Your task to perform on an android device: Go to Yahoo.com Image 0: 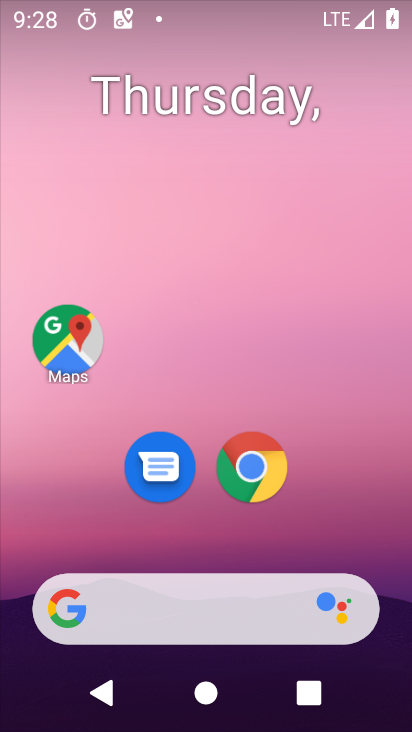
Step 0: click (245, 470)
Your task to perform on an android device: Go to Yahoo.com Image 1: 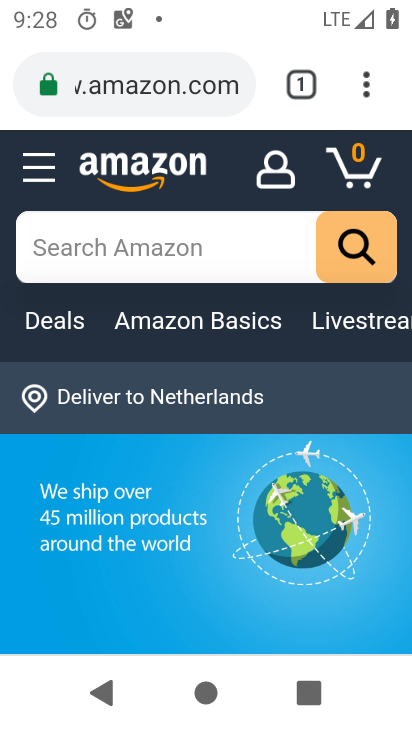
Step 1: click (143, 101)
Your task to perform on an android device: Go to Yahoo.com Image 2: 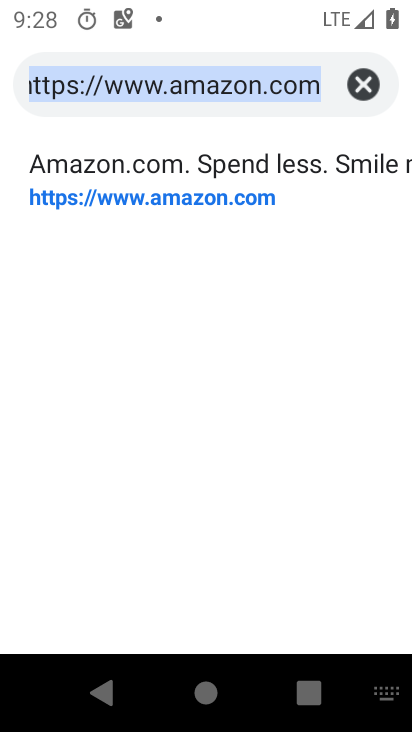
Step 2: type "yahoo.com"
Your task to perform on an android device: Go to Yahoo.com Image 3: 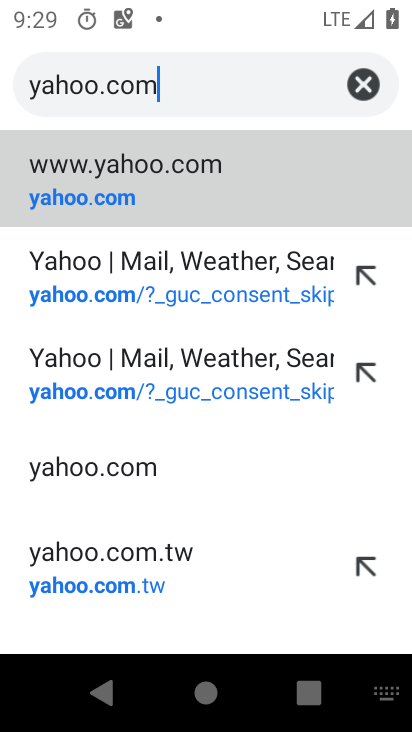
Step 3: click (107, 187)
Your task to perform on an android device: Go to Yahoo.com Image 4: 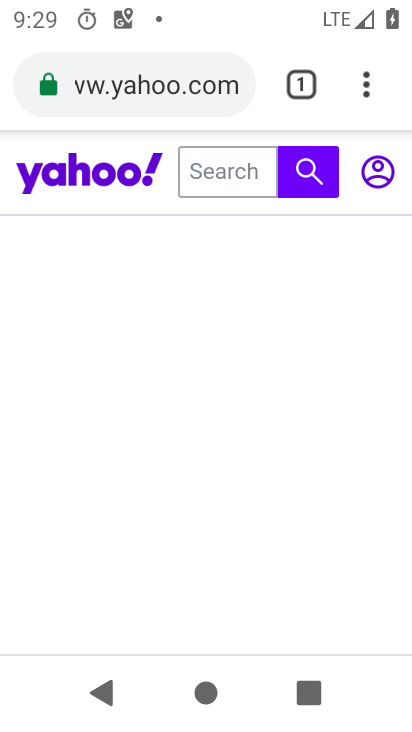
Step 4: task complete